Your task to perform on an android device: Open Maps and search for coffee Image 0: 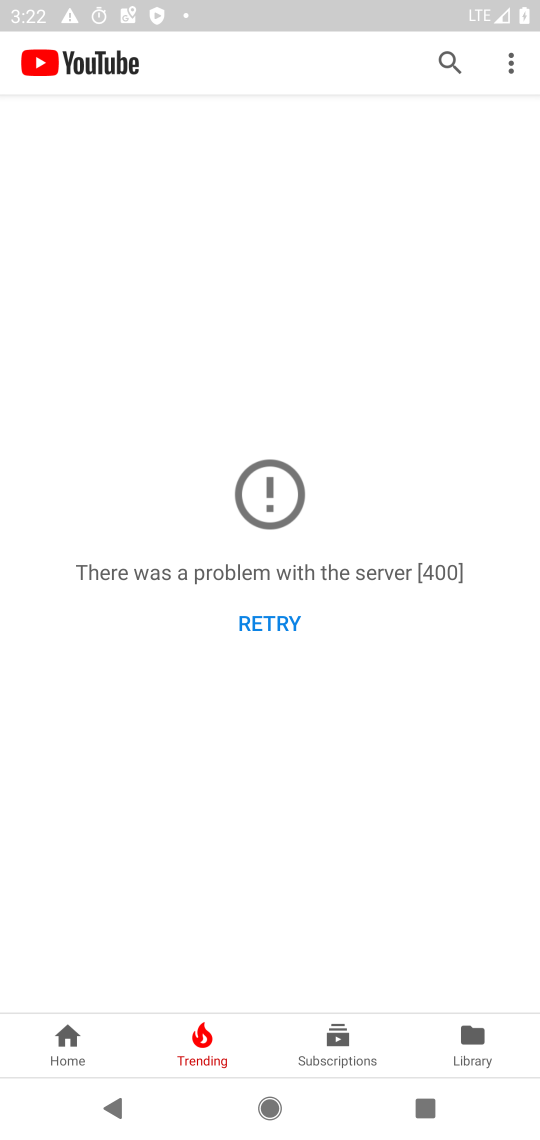
Step 0: press home button
Your task to perform on an android device: Open Maps and search for coffee Image 1: 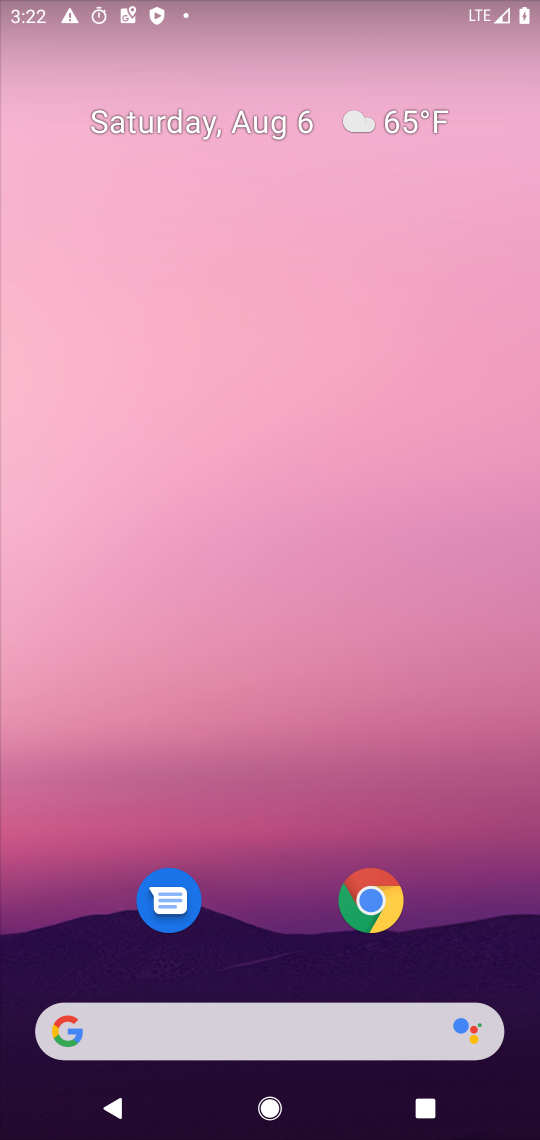
Step 1: drag from (257, 908) to (202, 92)
Your task to perform on an android device: Open Maps and search for coffee Image 2: 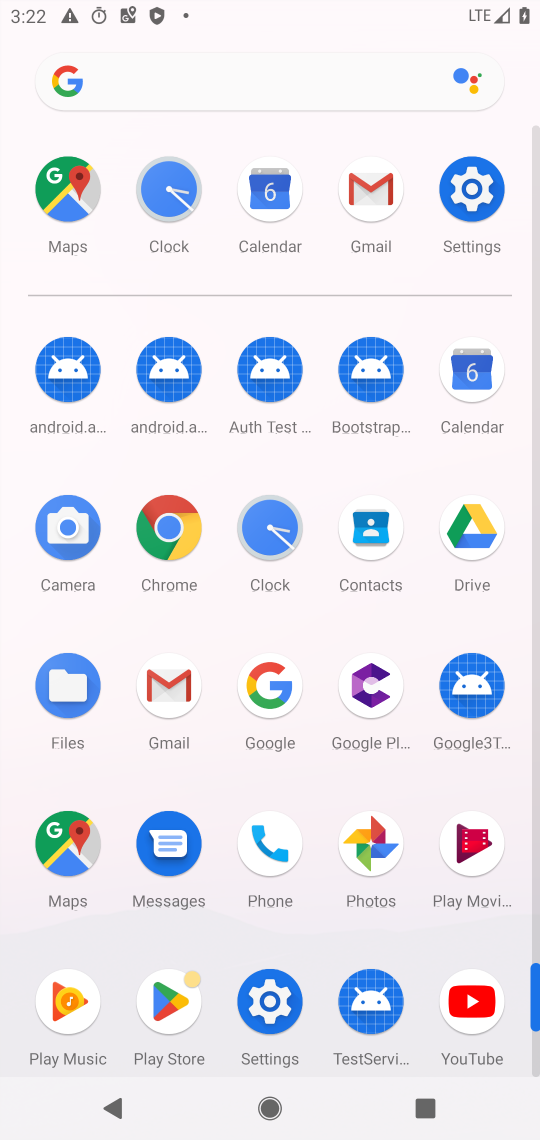
Step 2: click (74, 812)
Your task to perform on an android device: Open Maps and search for coffee Image 3: 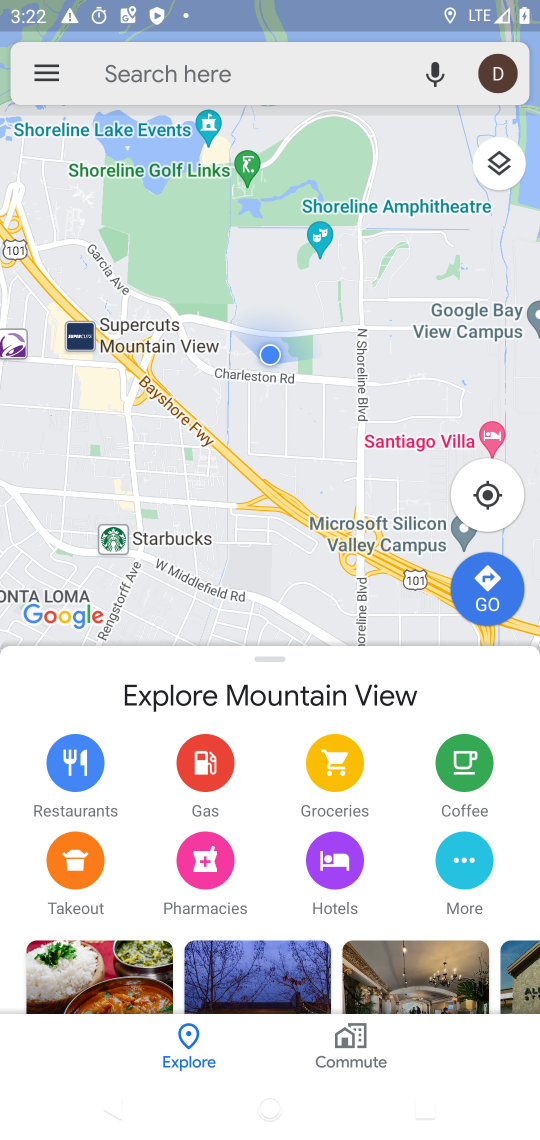
Step 3: click (152, 69)
Your task to perform on an android device: Open Maps and search for coffee Image 4: 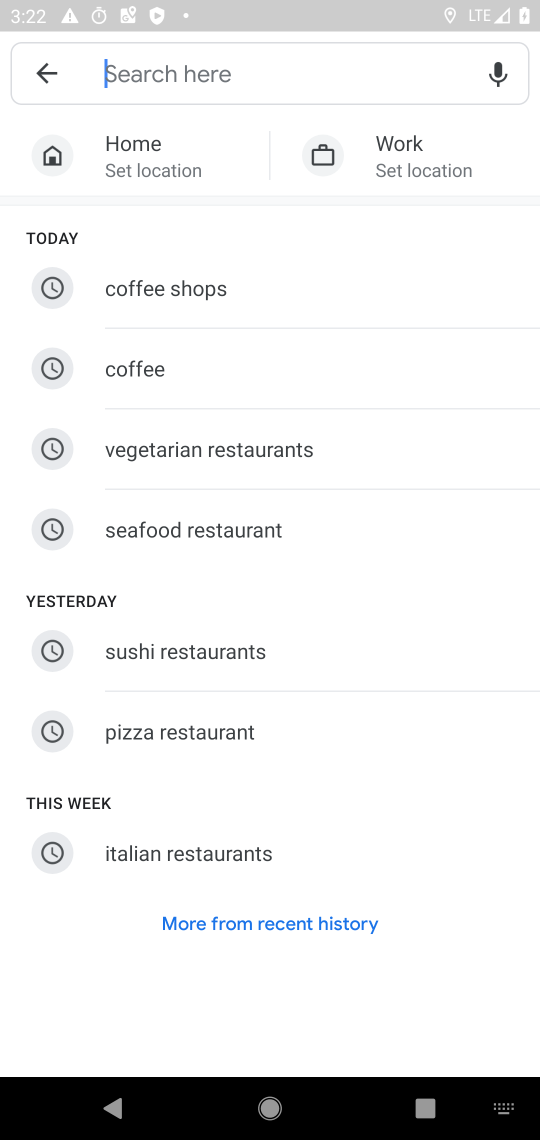
Step 4: type "coffee"
Your task to perform on an android device: Open Maps and search for coffee Image 5: 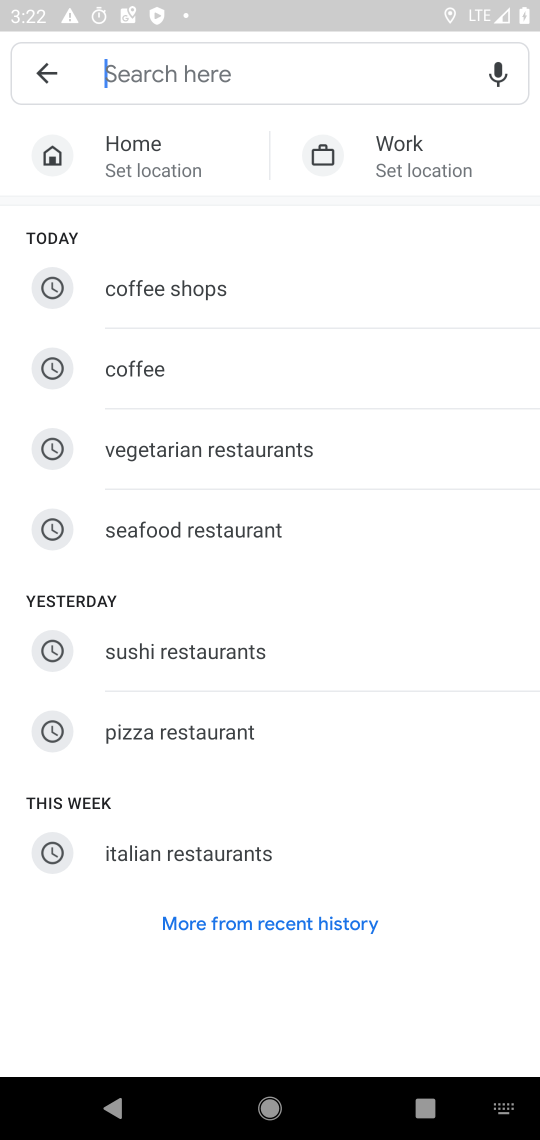
Step 5: click (138, 67)
Your task to perform on an android device: Open Maps and search for coffee Image 6: 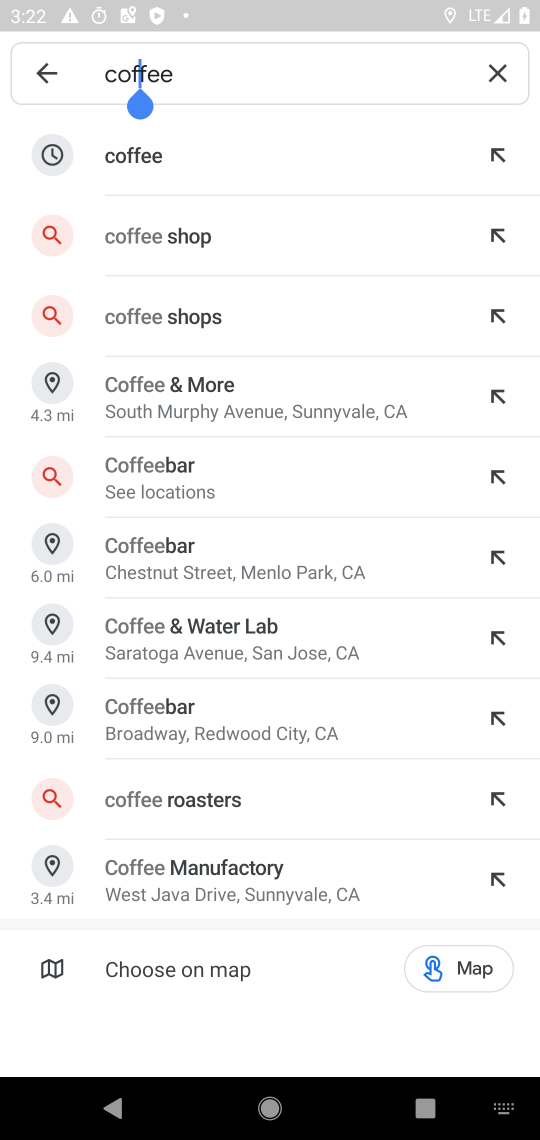
Step 6: press enter
Your task to perform on an android device: Open Maps and search for coffee Image 7: 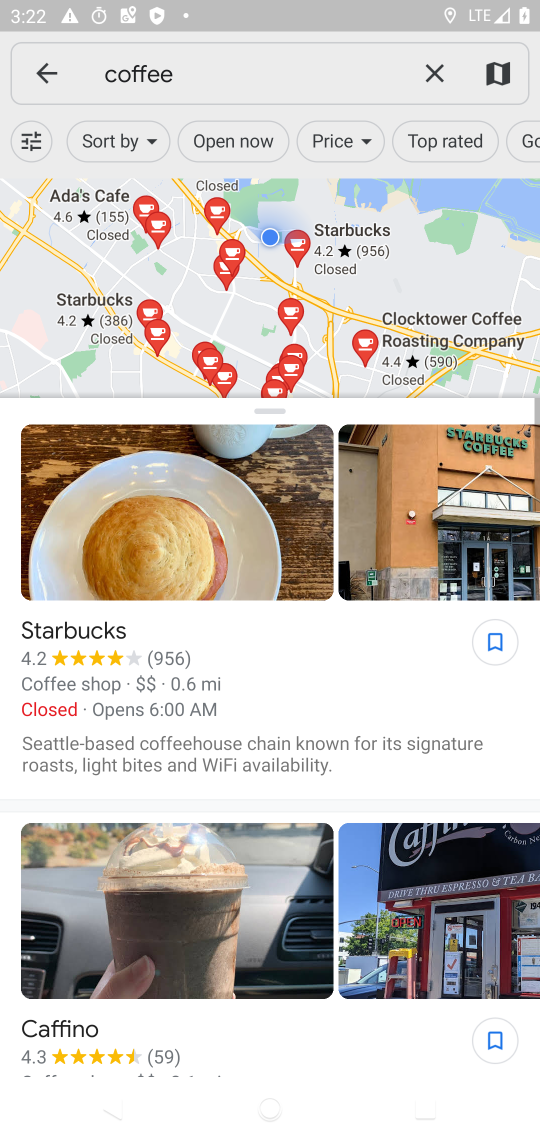
Step 7: task complete